Your task to perform on an android device: Open wifi settings Image 0: 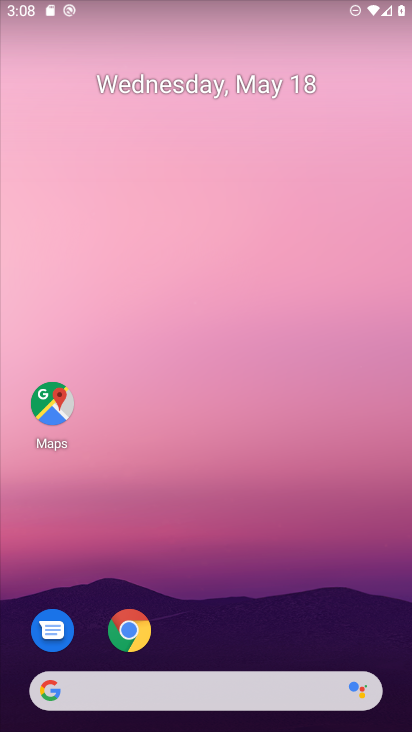
Step 0: drag from (277, 357) to (309, 55)
Your task to perform on an android device: Open wifi settings Image 1: 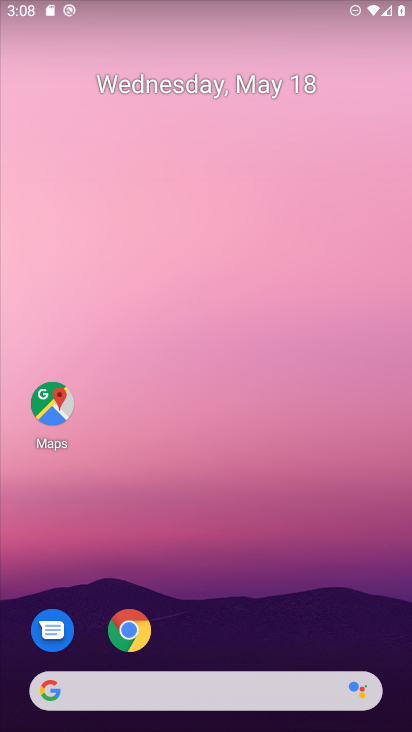
Step 1: drag from (195, 632) to (251, 35)
Your task to perform on an android device: Open wifi settings Image 2: 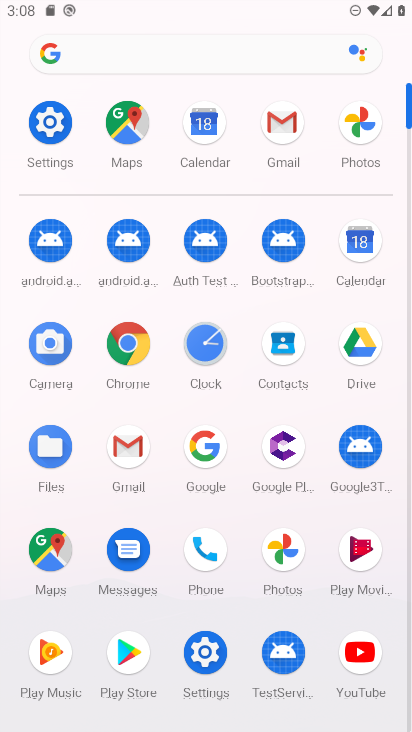
Step 2: click (48, 109)
Your task to perform on an android device: Open wifi settings Image 3: 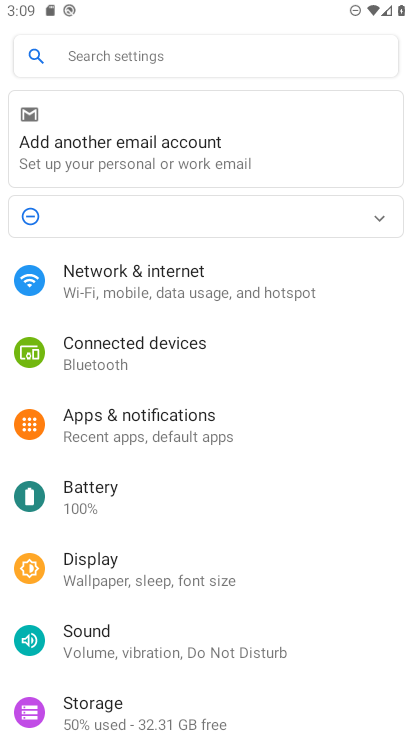
Step 3: click (125, 266)
Your task to perform on an android device: Open wifi settings Image 4: 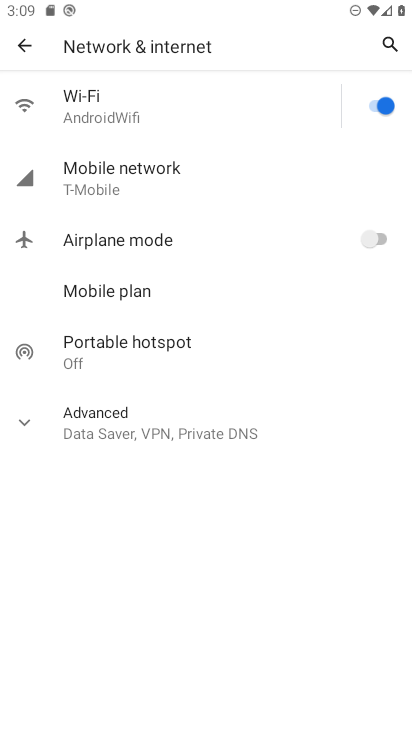
Step 4: click (18, 427)
Your task to perform on an android device: Open wifi settings Image 5: 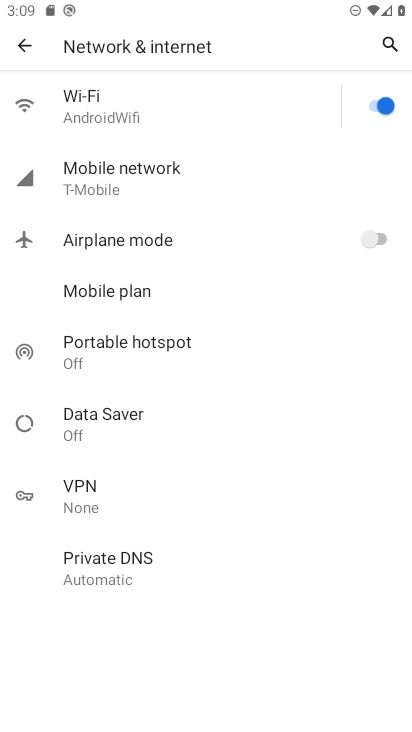
Step 5: click (183, 102)
Your task to perform on an android device: Open wifi settings Image 6: 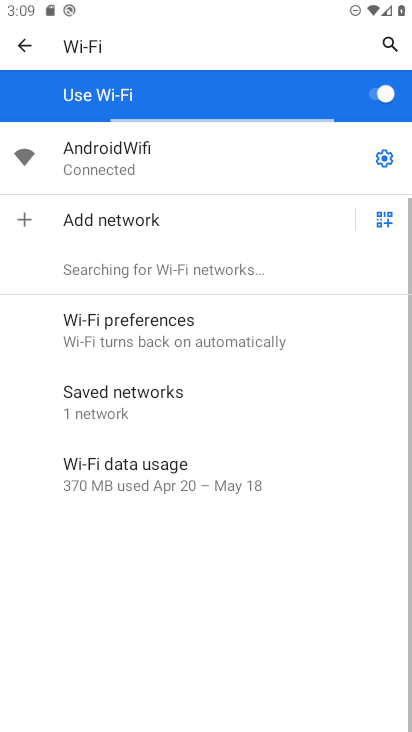
Step 6: task complete